Your task to perform on an android device: find which apps use the phone's location Image 0: 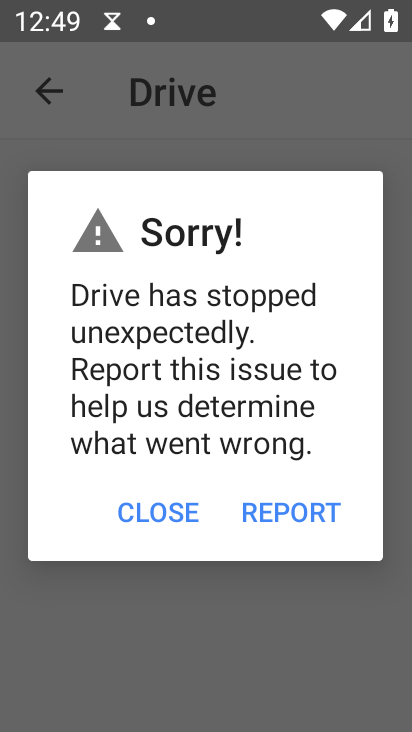
Step 0: press home button
Your task to perform on an android device: find which apps use the phone's location Image 1: 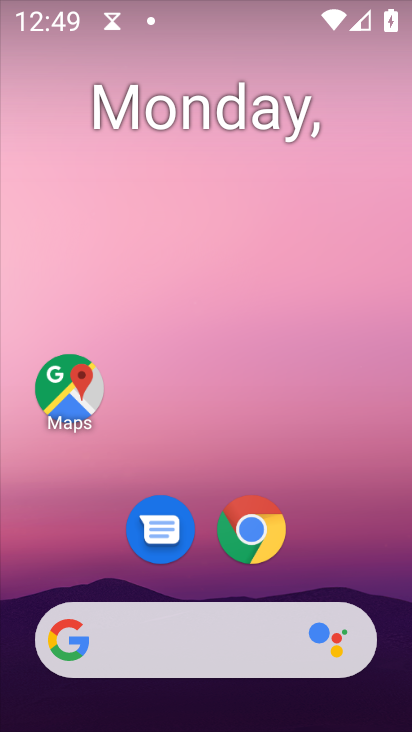
Step 1: drag from (356, 545) to (387, 158)
Your task to perform on an android device: find which apps use the phone's location Image 2: 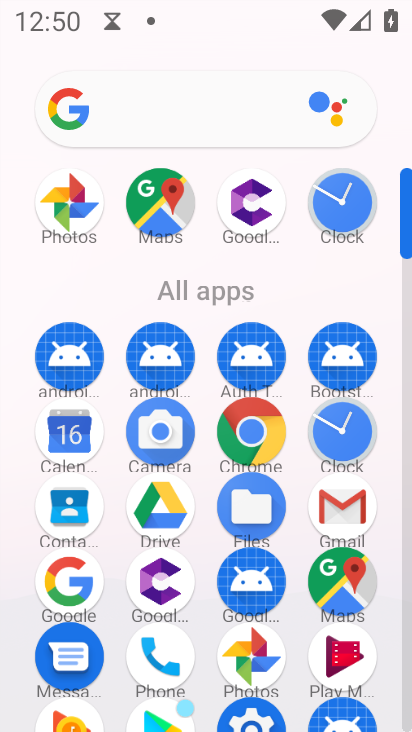
Step 2: drag from (301, 425) to (311, 112)
Your task to perform on an android device: find which apps use the phone's location Image 3: 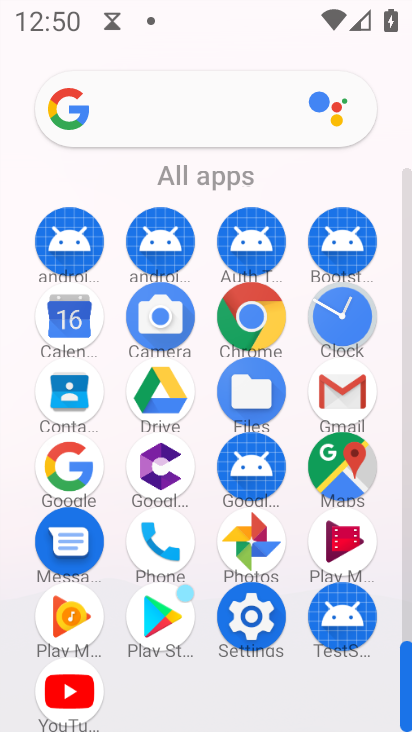
Step 3: click (172, 540)
Your task to perform on an android device: find which apps use the phone's location Image 4: 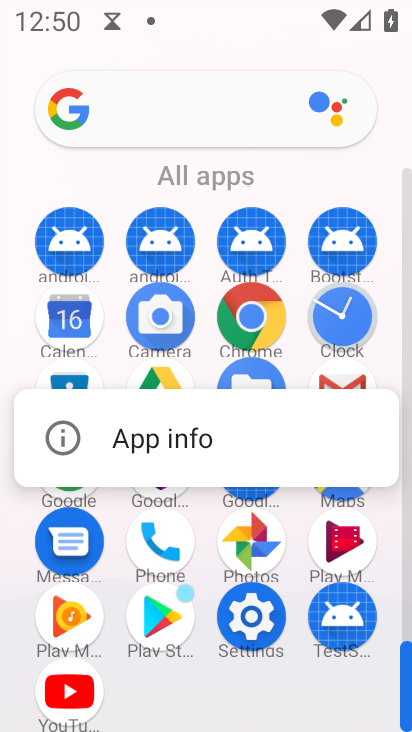
Step 4: click (179, 452)
Your task to perform on an android device: find which apps use the phone's location Image 5: 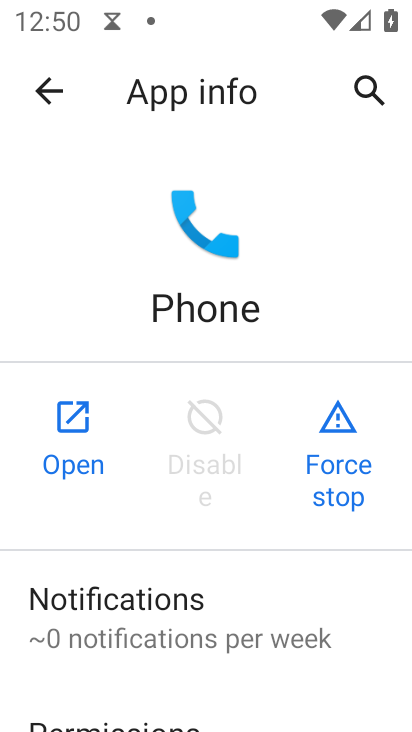
Step 5: drag from (331, 600) to (323, 321)
Your task to perform on an android device: find which apps use the phone's location Image 6: 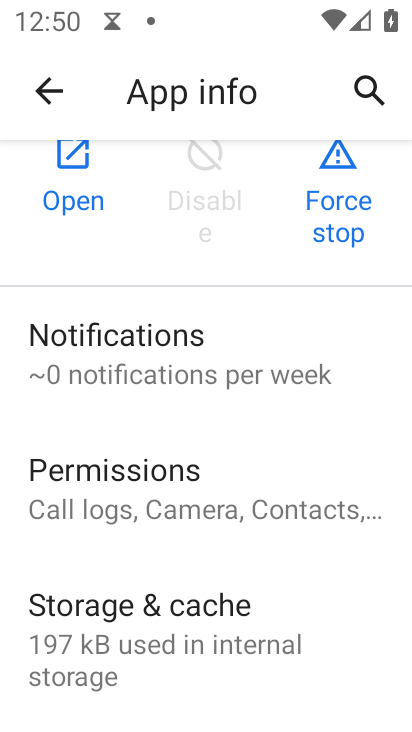
Step 6: click (117, 476)
Your task to perform on an android device: find which apps use the phone's location Image 7: 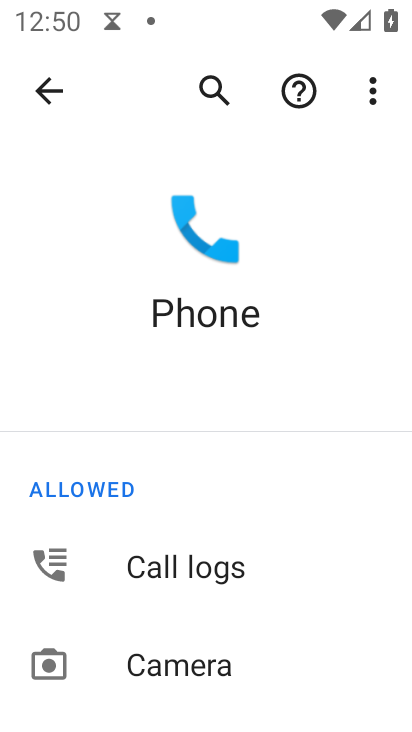
Step 7: drag from (295, 595) to (283, 311)
Your task to perform on an android device: find which apps use the phone's location Image 8: 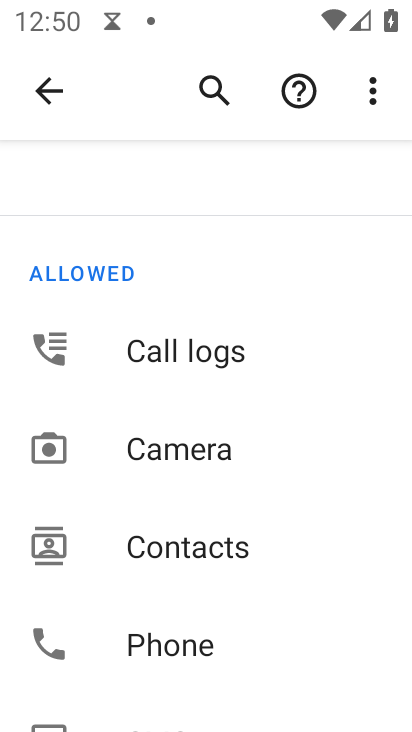
Step 8: drag from (309, 618) to (309, 308)
Your task to perform on an android device: find which apps use the phone's location Image 9: 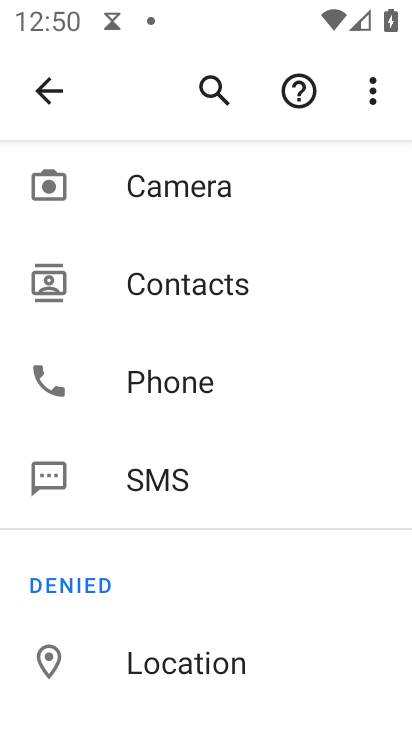
Step 9: click (188, 660)
Your task to perform on an android device: find which apps use the phone's location Image 10: 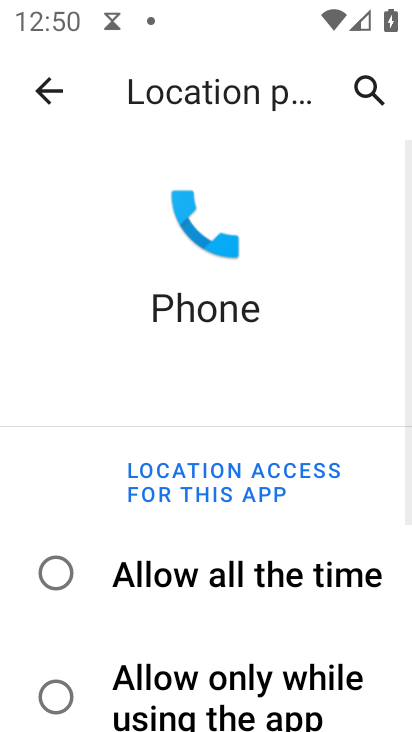
Step 10: task complete